Your task to perform on an android device: install app "File Manager" Image 0: 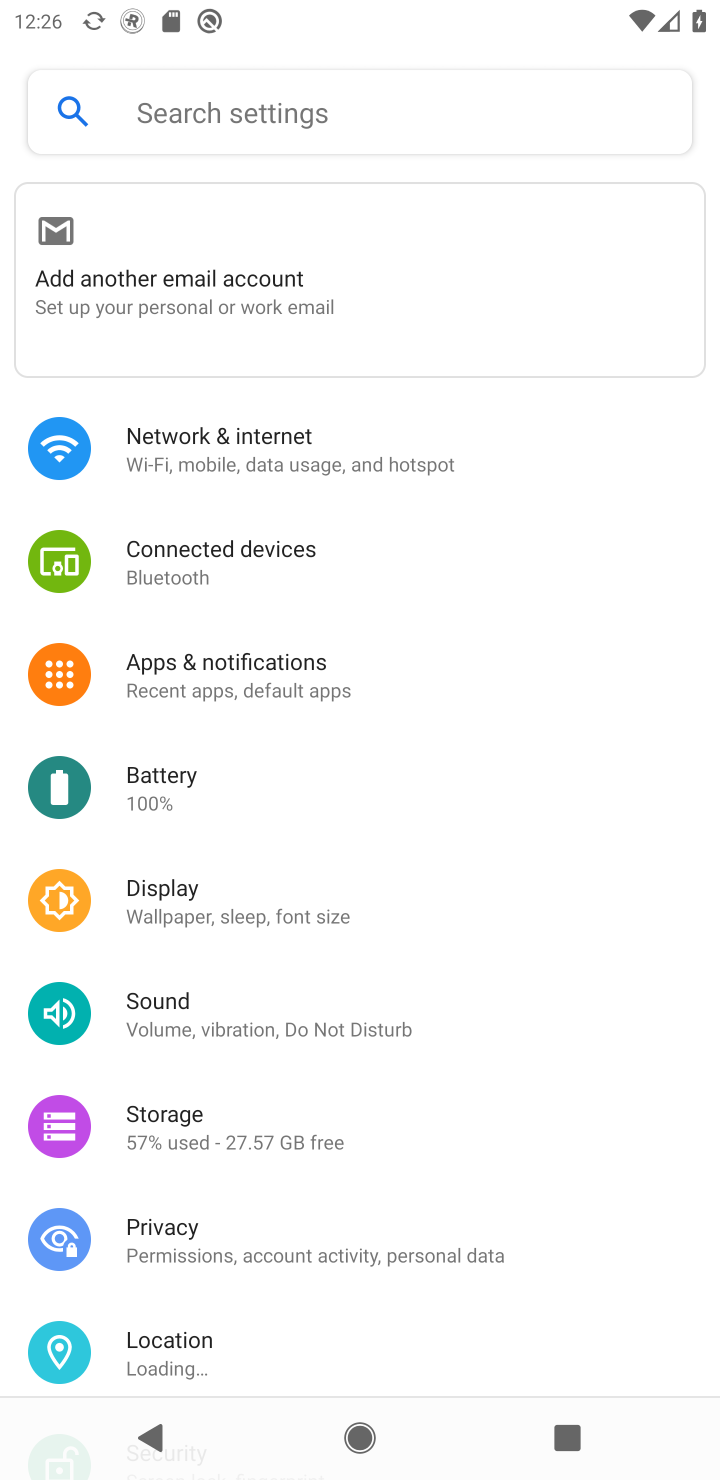
Step 0: press home button
Your task to perform on an android device: install app "File Manager" Image 1: 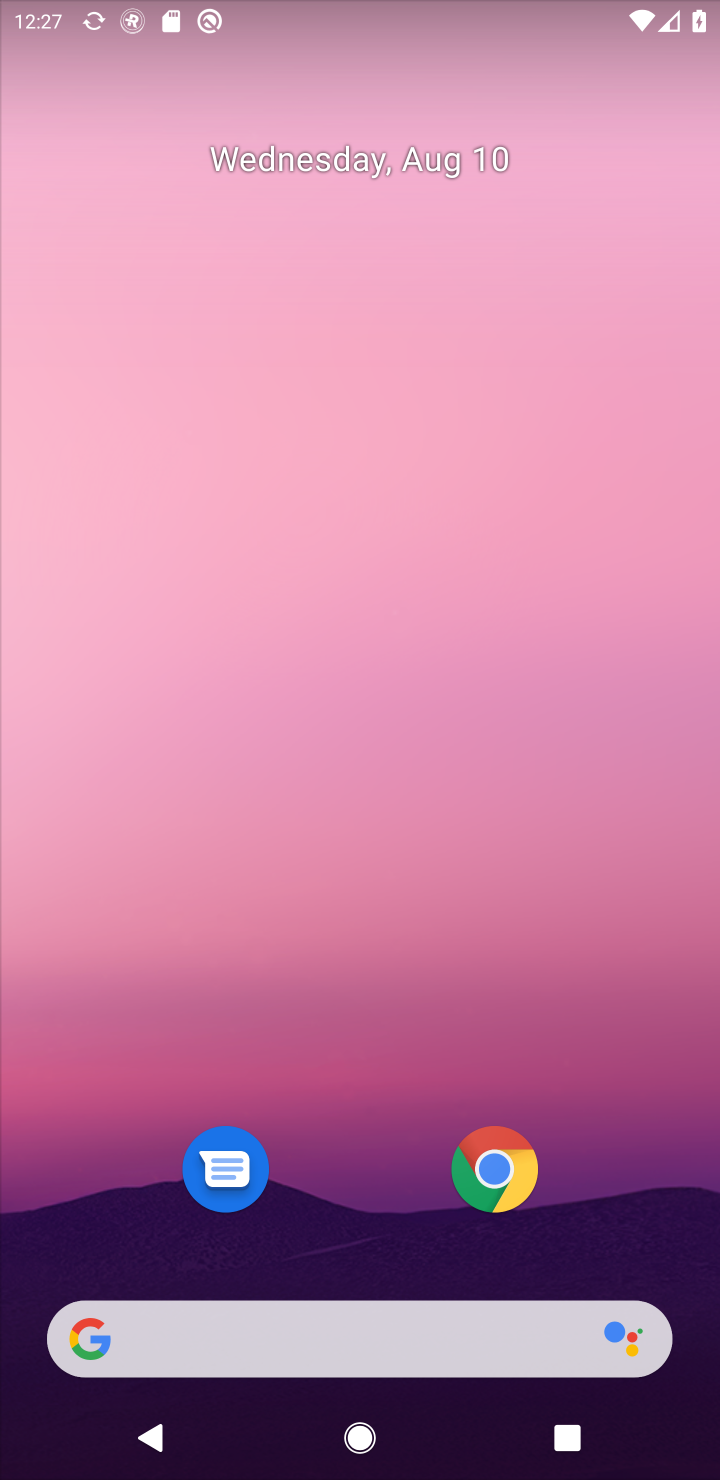
Step 1: press home button
Your task to perform on an android device: install app "File Manager" Image 2: 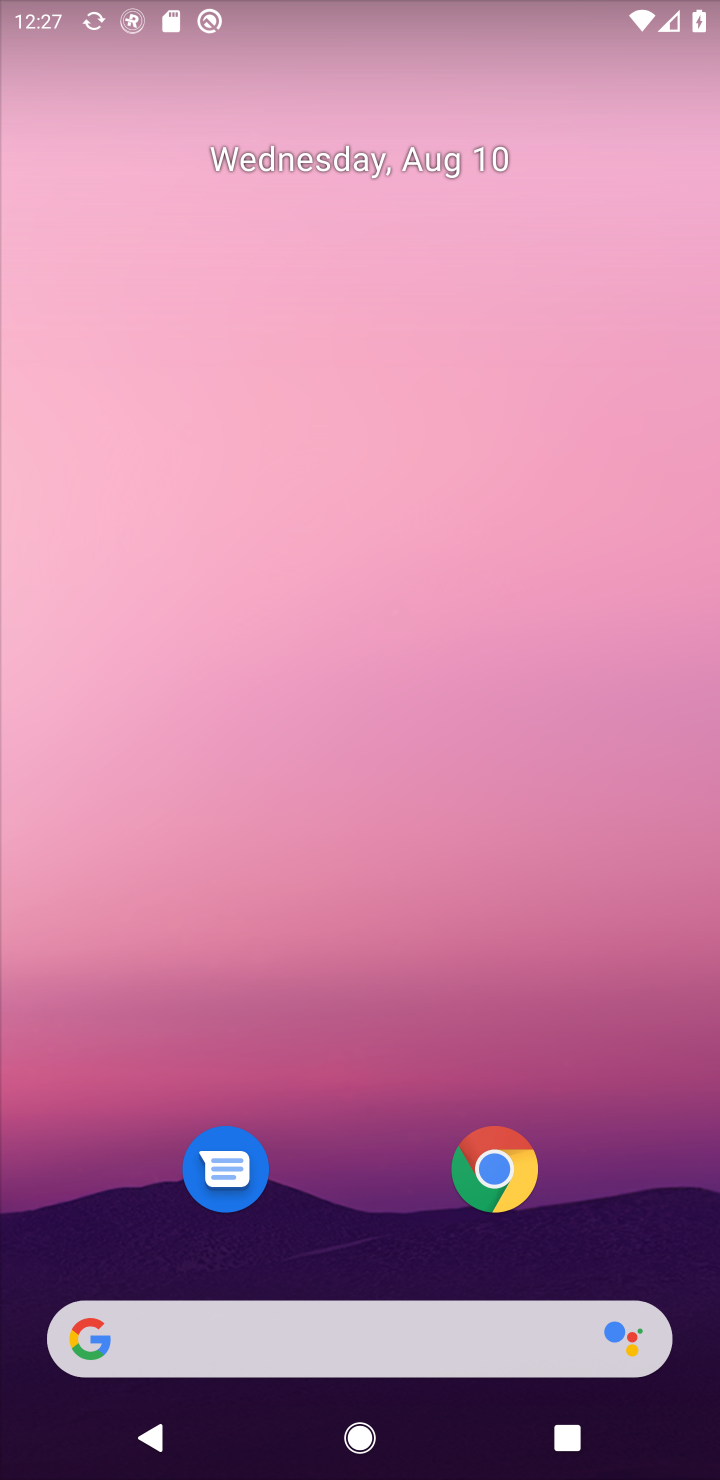
Step 2: drag from (633, 1219) to (646, 103)
Your task to perform on an android device: install app "File Manager" Image 3: 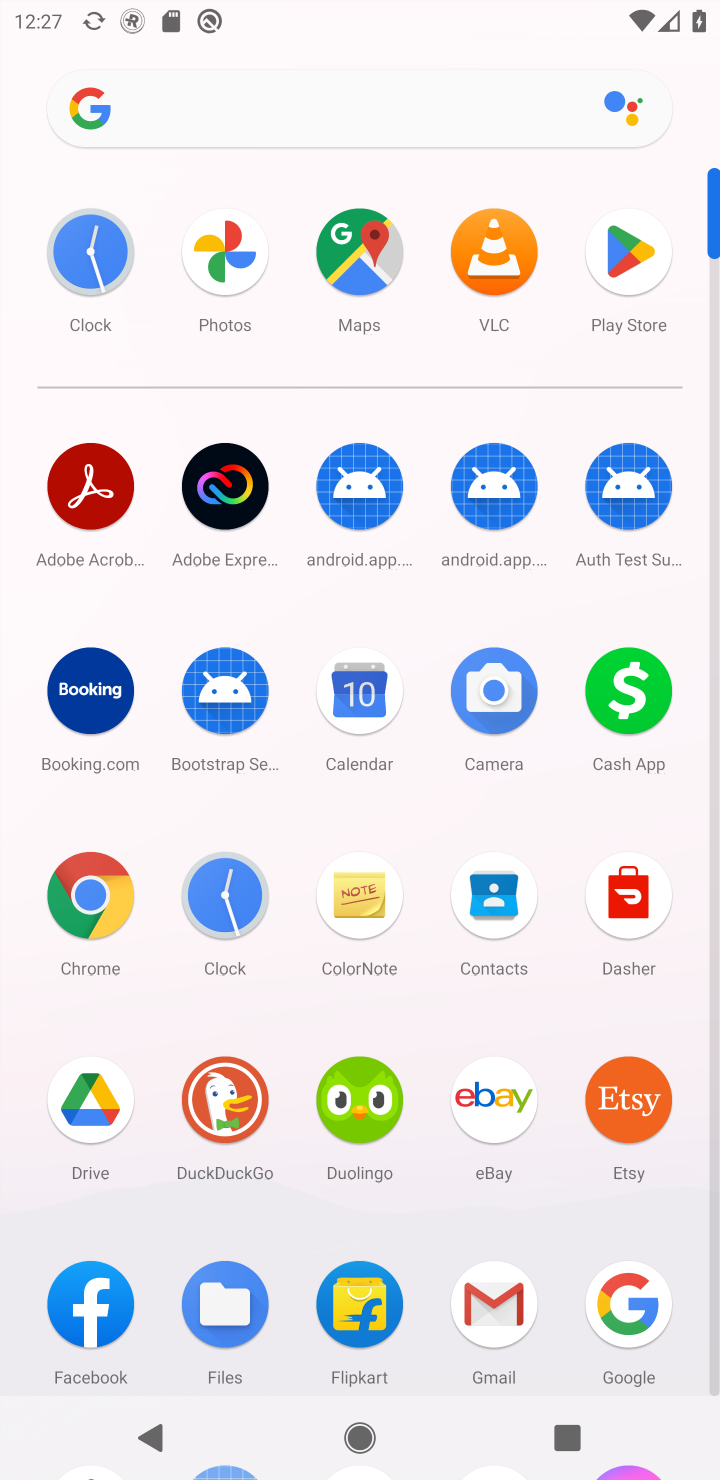
Step 3: click (635, 249)
Your task to perform on an android device: install app "File Manager" Image 4: 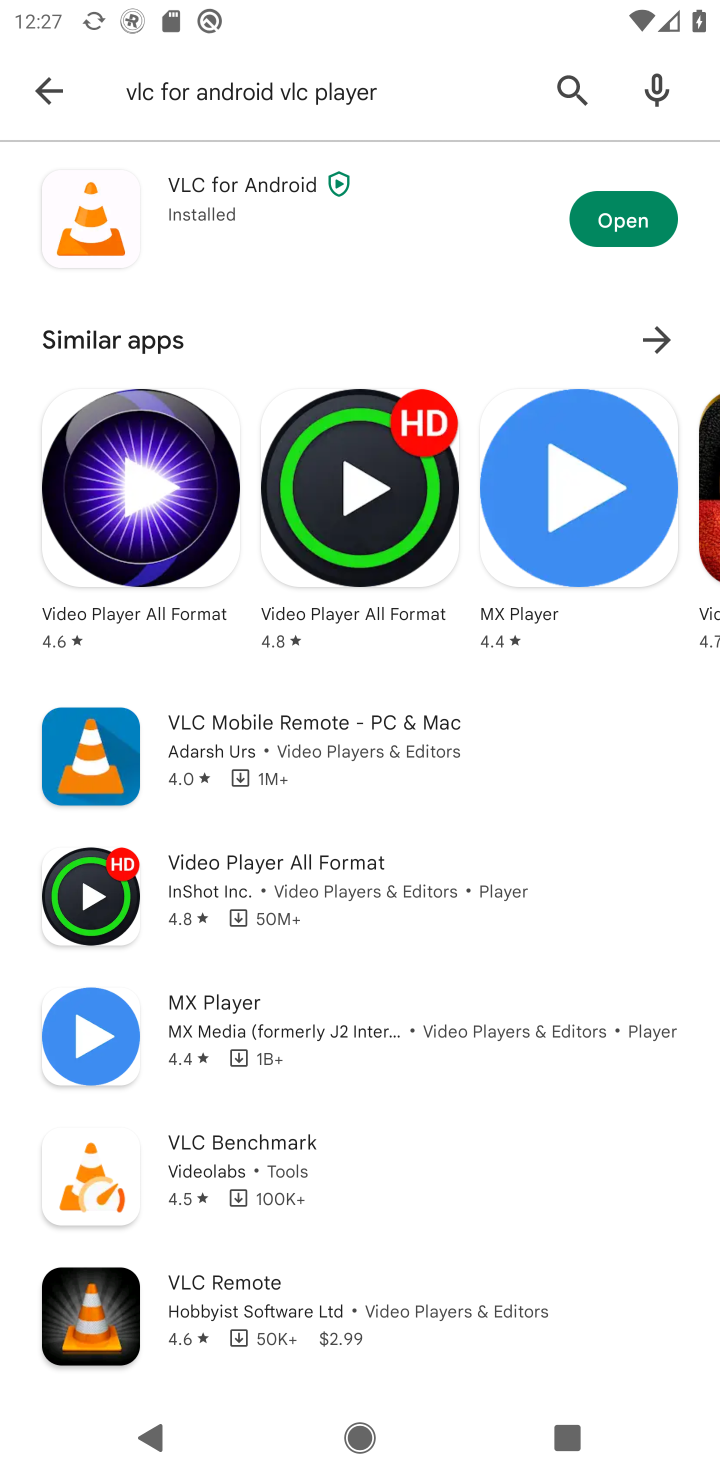
Step 4: click (569, 93)
Your task to perform on an android device: install app "File Manager" Image 5: 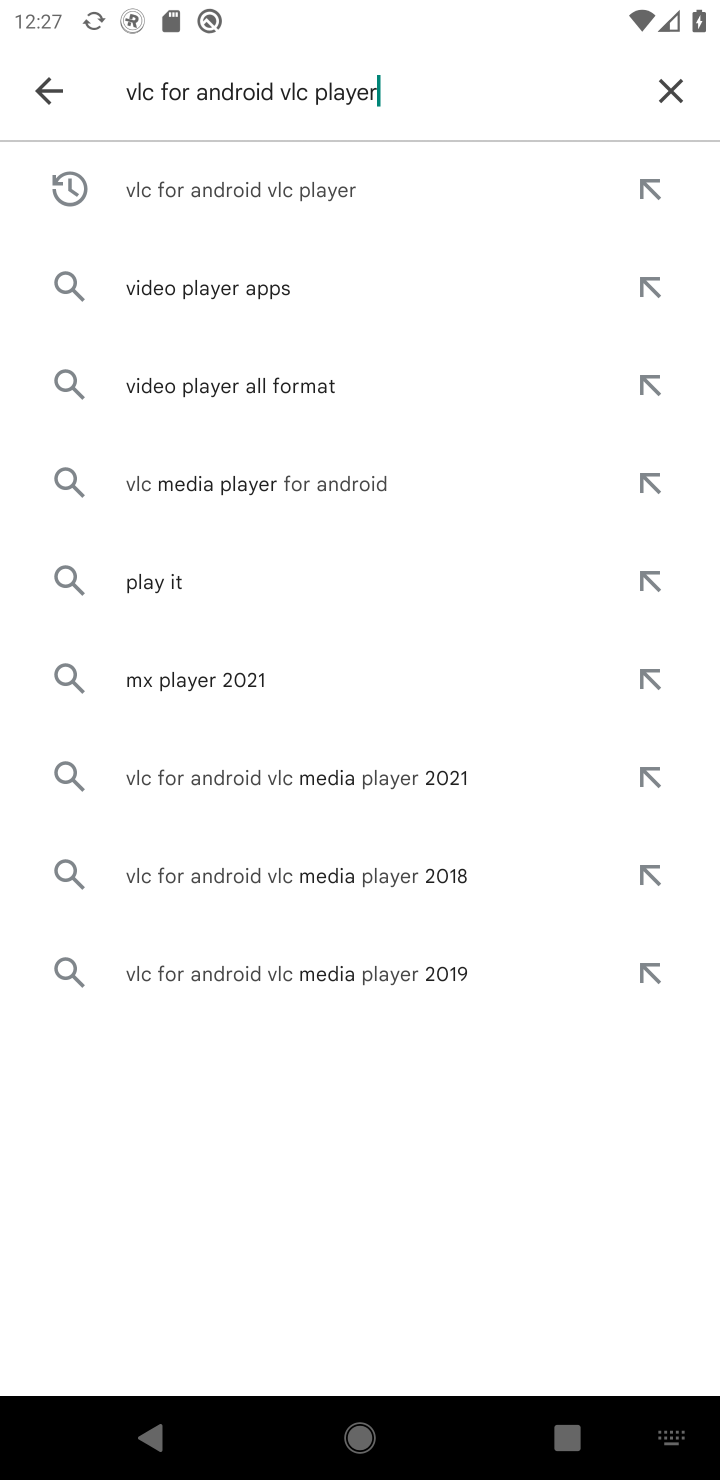
Step 5: click (682, 82)
Your task to perform on an android device: install app "File Manager" Image 6: 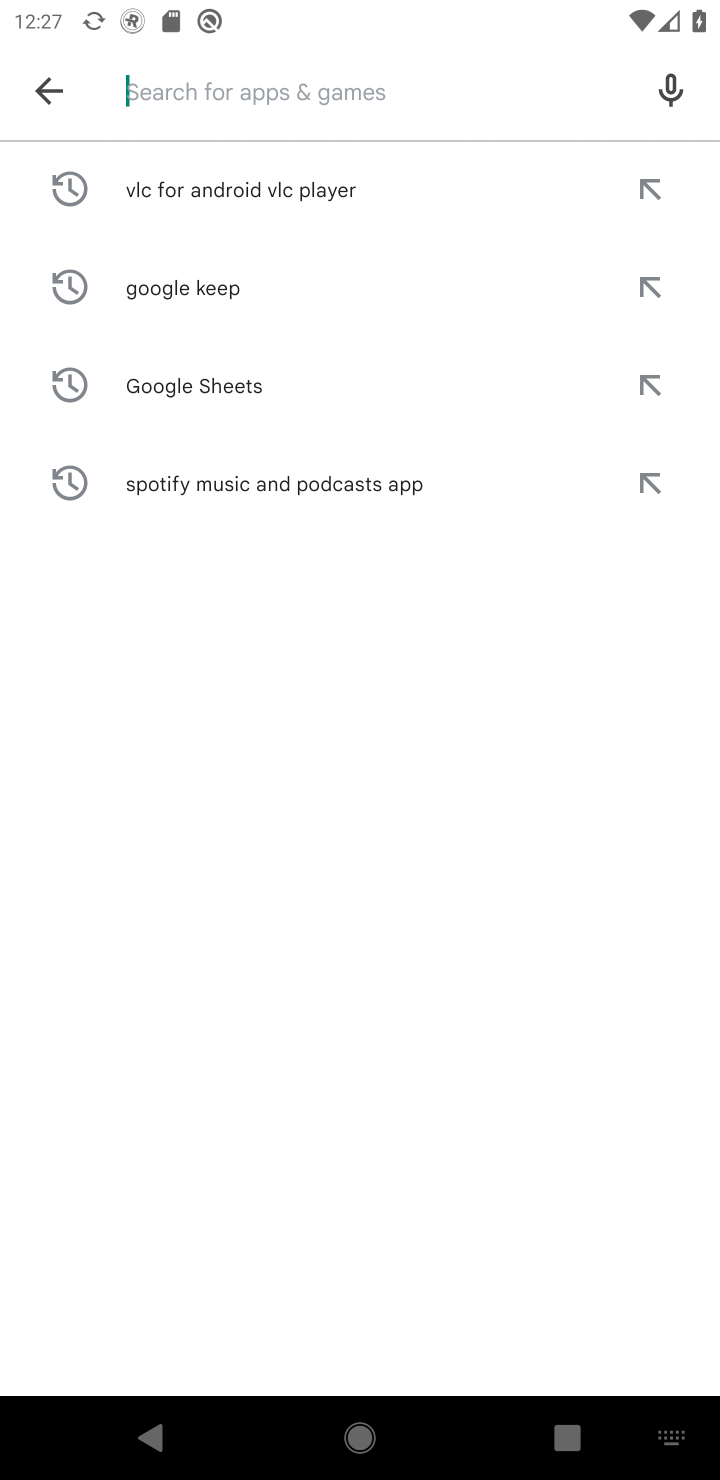
Step 6: type "file manager"
Your task to perform on an android device: install app "File Manager" Image 7: 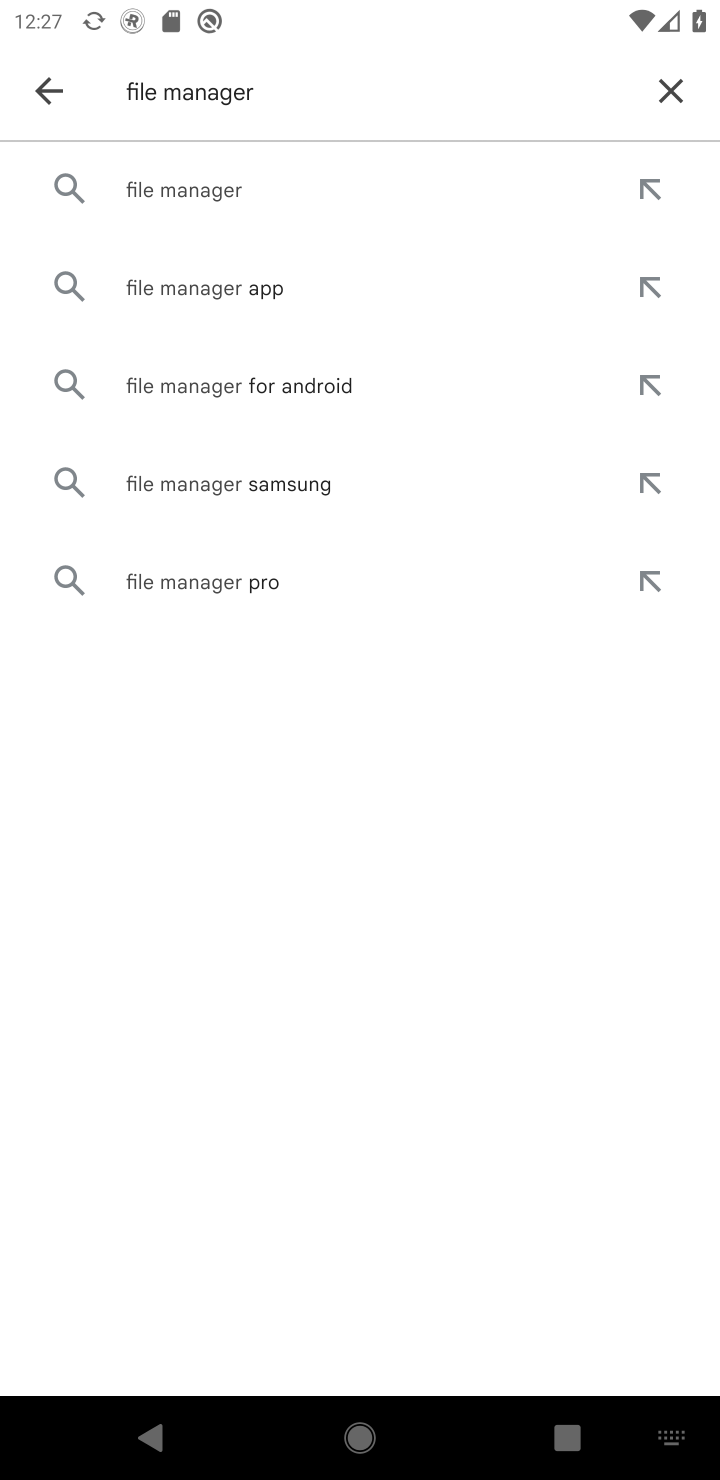
Step 7: click (264, 196)
Your task to perform on an android device: install app "File Manager" Image 8: 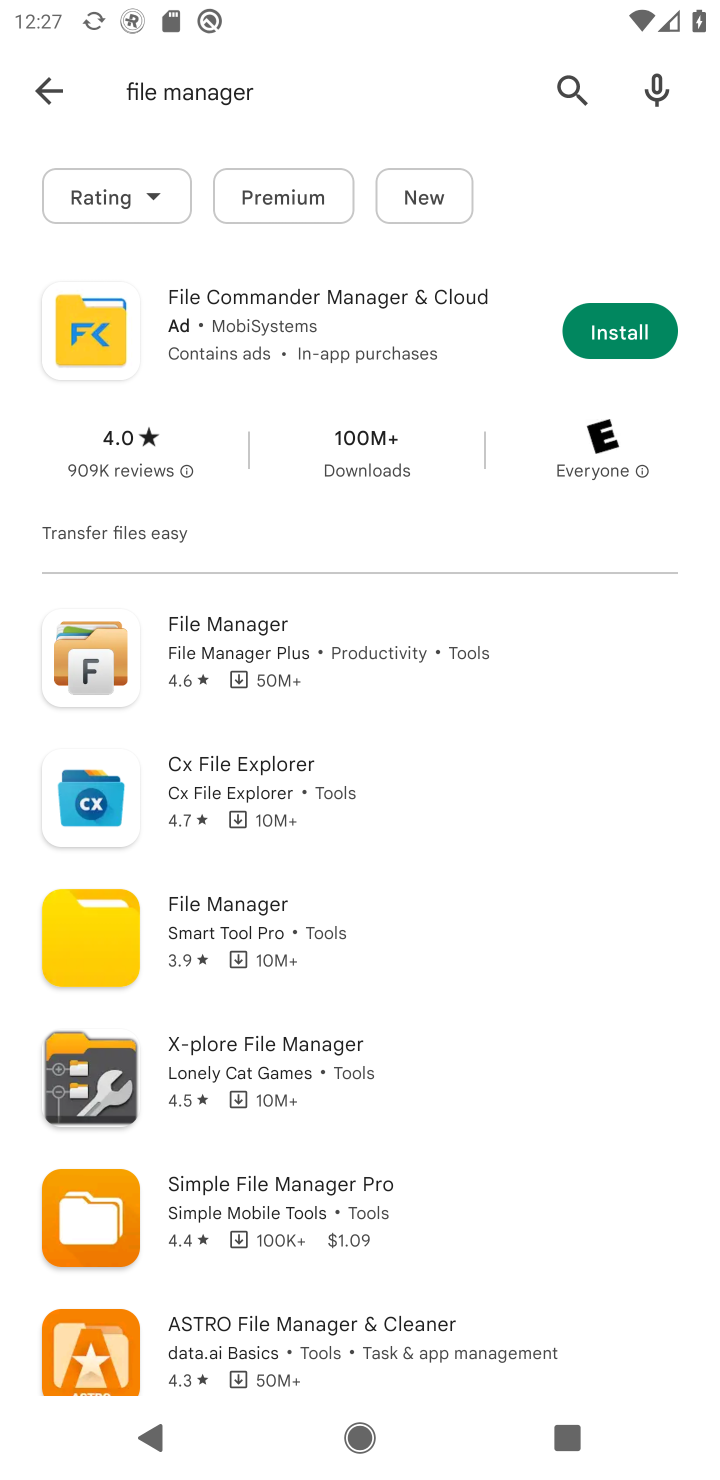
Step 8: task complete